Your task to perform on an android device: Show me recent news Image 0: 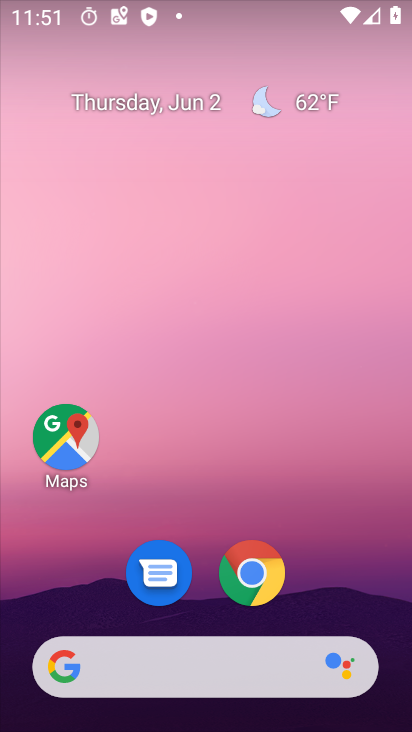
Step 0: drag from (227, 509) to (267, 88)
Your task to perform on an android device: Show me recent news Image 1: 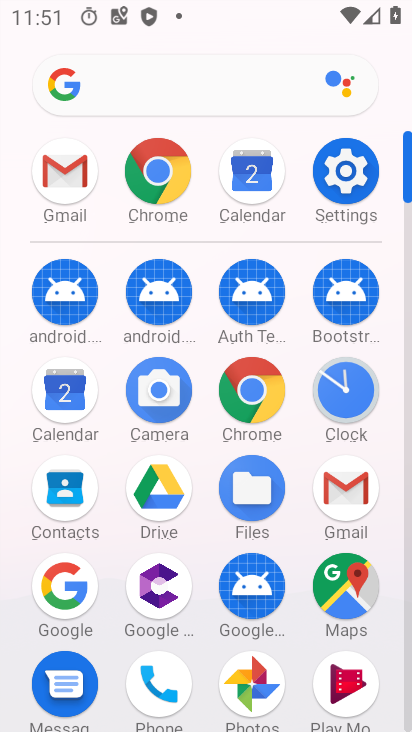
Step 1: click (276, 383)
Your task to perform on an android device: Show me recent news Image 2: 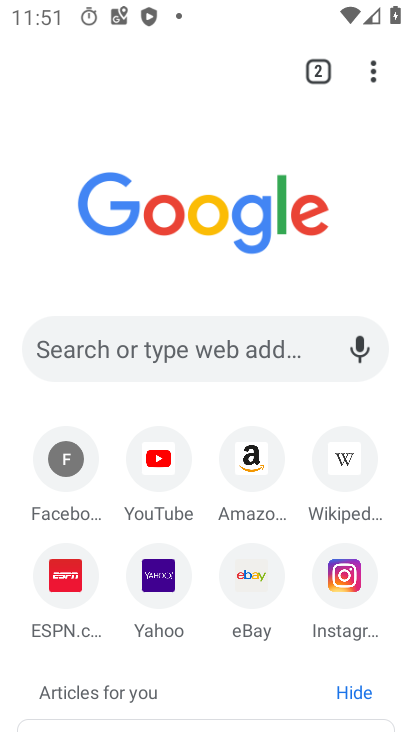
Step 2: click (279, 319)
Your task to perform on an android device: Show me recent news Image 3: 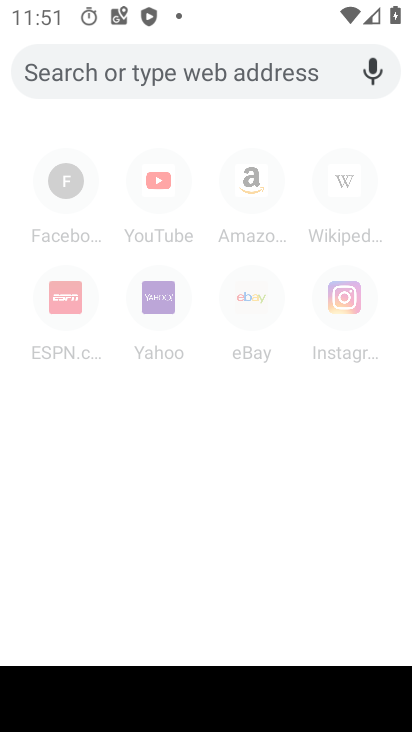
Step 3: type "show me recent news"
Your task to perform on an android device: Show me recent news Image 4: 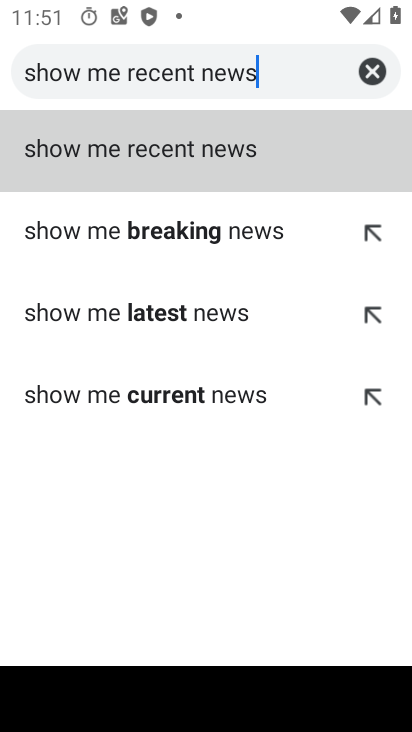
Step 4: click (224, 163)
Your task to perform on an android device: Show me recent news Image 5: 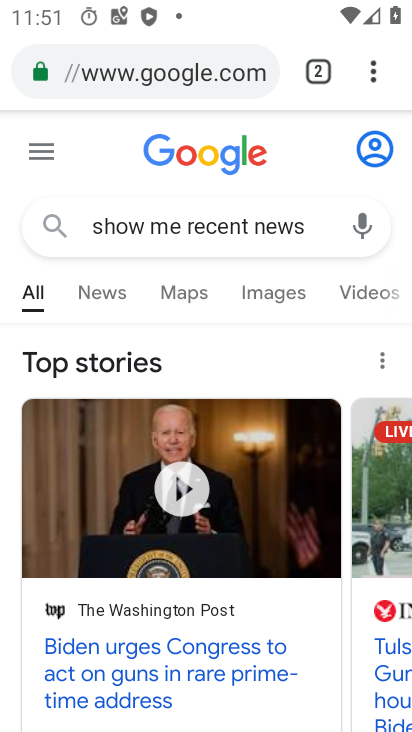
Step 5: task complete